Your task to perform on an android device: Find coffee shops on Maps Image 0: 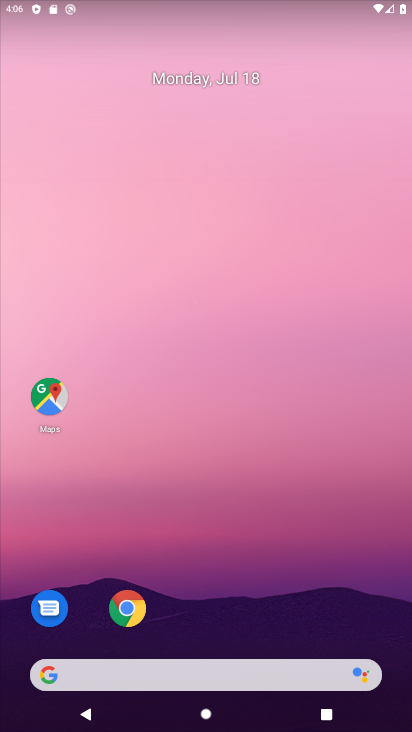
Step 0: click (54, 386)
Your task to perform on an android device: Find coffee shops on Maps Image 1: 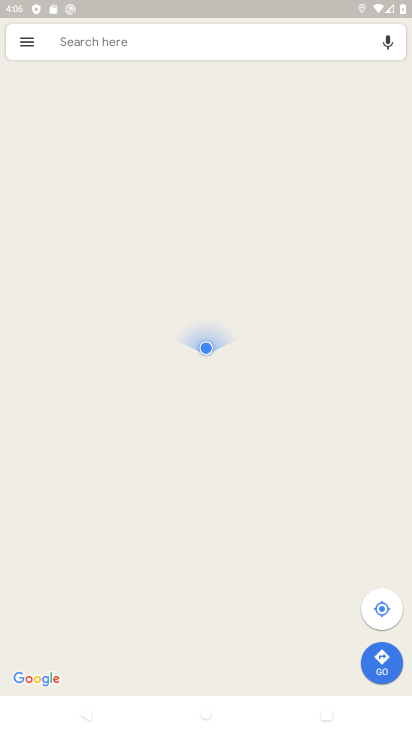
Step 1: click (141, 55)
Your task to perform on an android device: Find coffee shops on Maps Image 2: 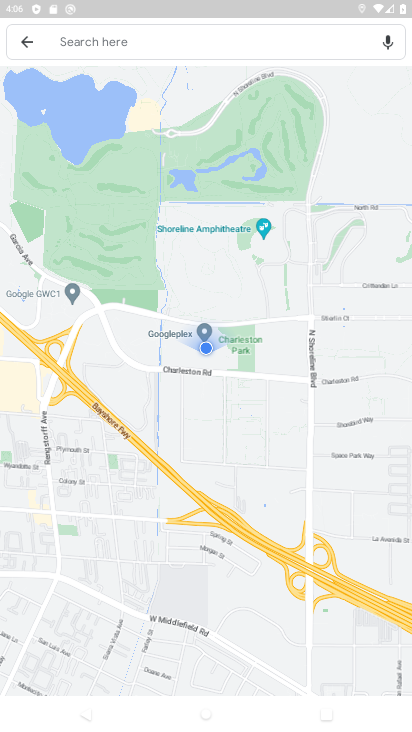
Step 2: click (92, 27)
Your task to perform on an android device: Find coffee shops on Maps Image 3: 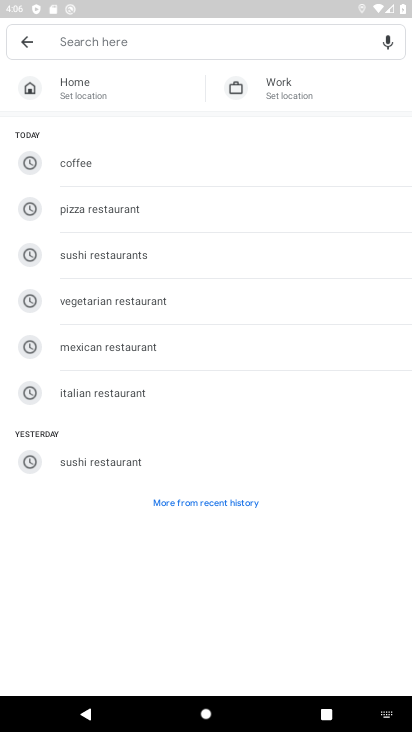
Step 3: click (95, 164)
Your task to perform on an android device: Find coffee shops on Maps Image 4: 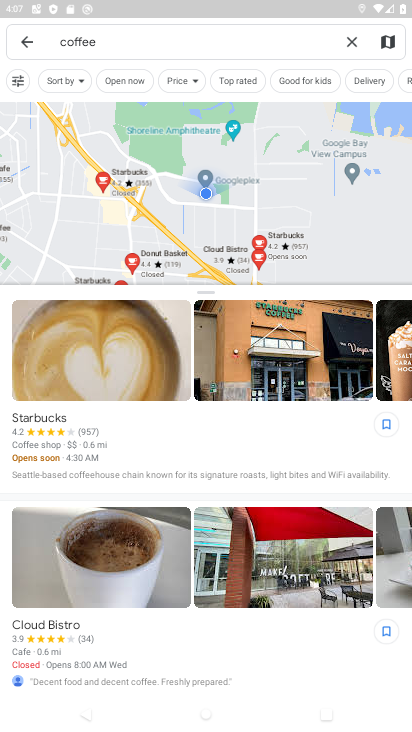
Step 4: task complete